Your task to perform on an android device: set the timer Image 0: 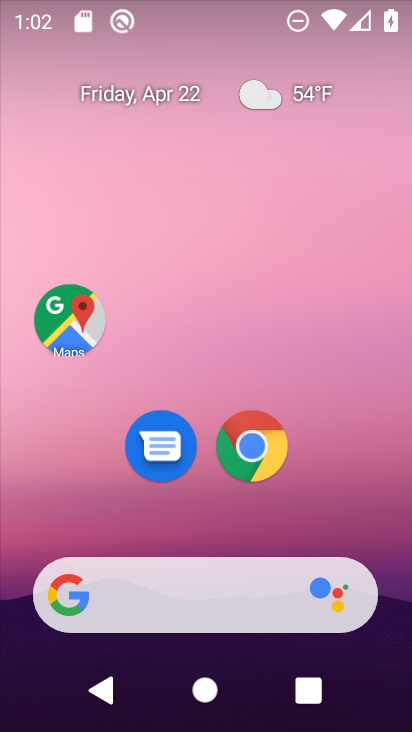
Step 0: drag from (390, 530) to (297, 138)
Your task to perform on an android device: set the timer Image 1: 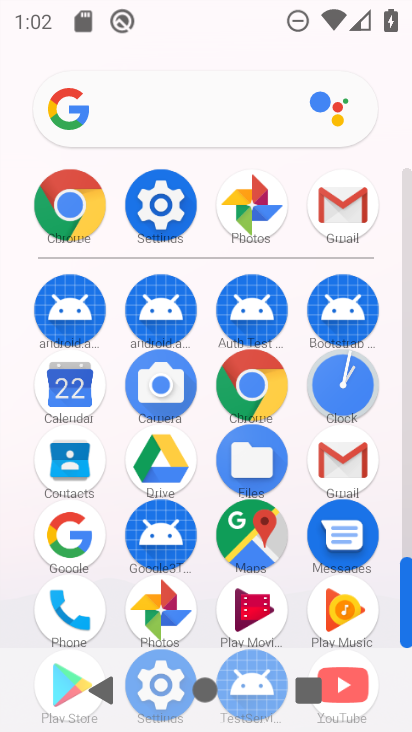
Step 1: click (333, 375)
Your task to perform on an android device: set the timer Image 2: 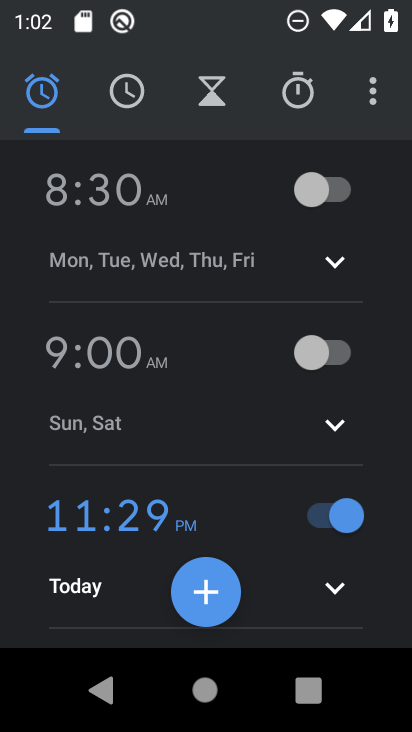
Step 2: click (224, 101)
Your task to perform on an android device: set the timer Image 3: 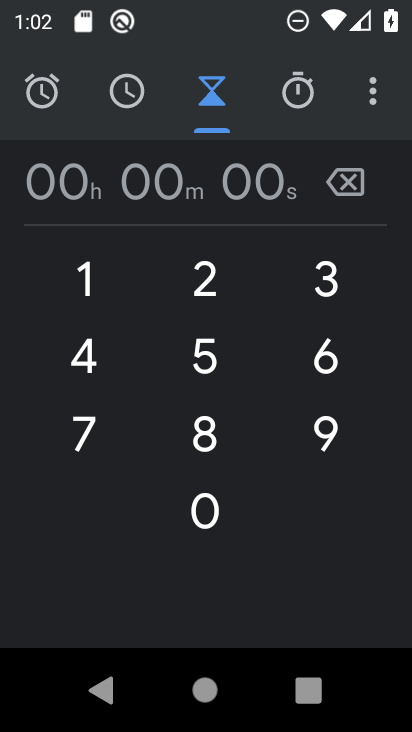
Step 3: type "100000"
Your task to perform on an android device: set the timer Image 4: 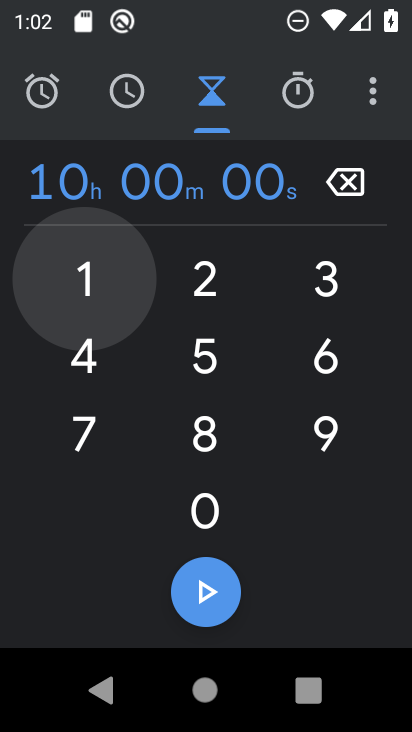
Step 4: click (226, 599)
Your task to perform on an android device: set the timer Image 5: 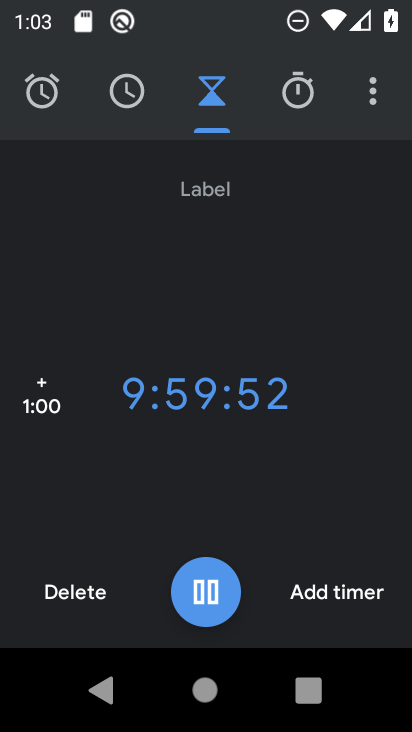
Step 5: task complete